Your task to perform on an android device: change keyboard looks Image 0: 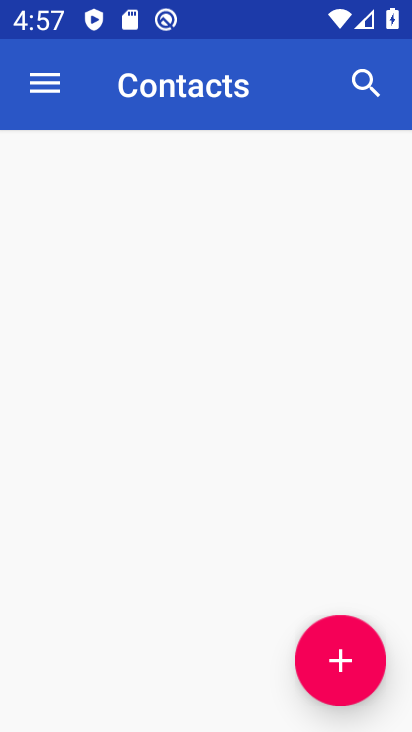
Step 0: press home button
Your task to perform on an android device: change keyboard looks Image 1: 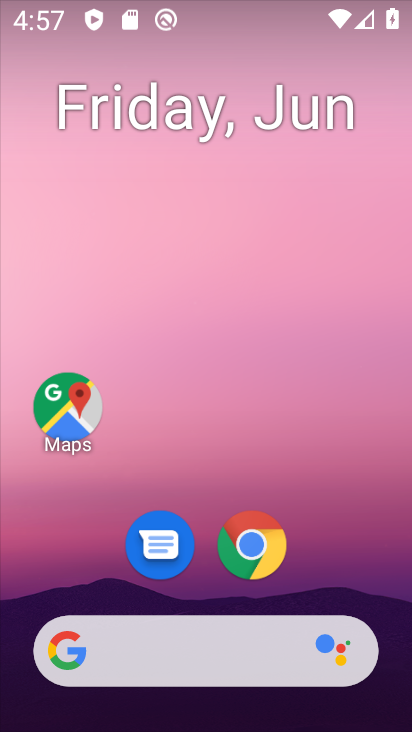
Step 1: drag from (193, 610) to (202, 215)
Your task to perform on an android device: change keyboard looks Image 2: 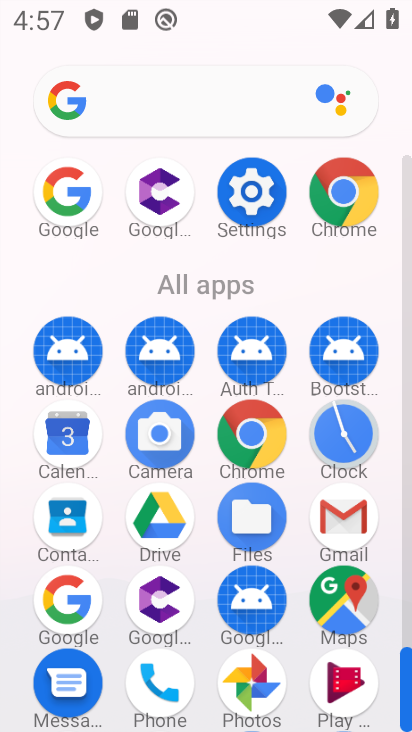
Step 2: click (243, 193)
Your task to perform on an android device: change keyboard looks Image 3: 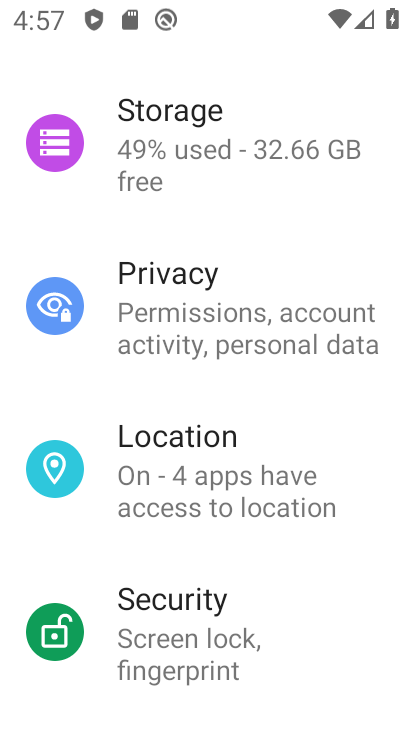
Step 3: drag from (205, 675) to (240, 280)
Your task to perform on an android device: change keyboard looks Image 4: 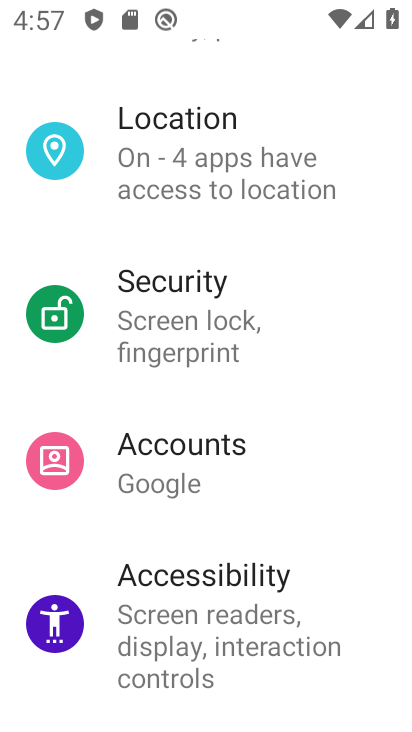
Step 4: drag from (218, 693) to (224, 315)
Your task to perform on an android device: change keyboard looks Image 5: 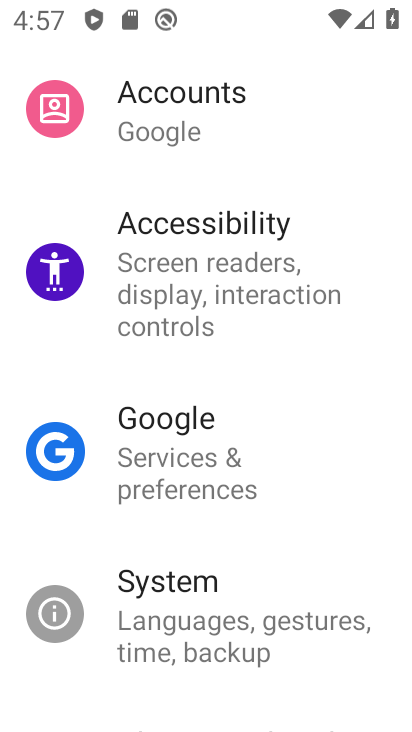
Step 5: click (180, 640)
Your task to perform on an android device: change keyboard looks Image 6: 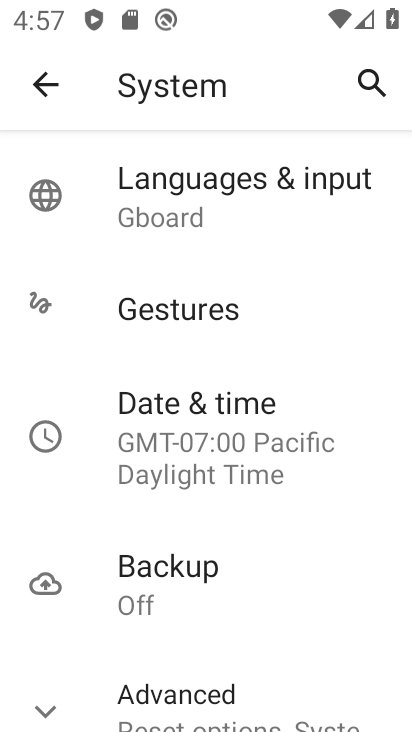
Step 6: click (240, 203)
Your task to perform on an android device: change keyboard looks Image 7: 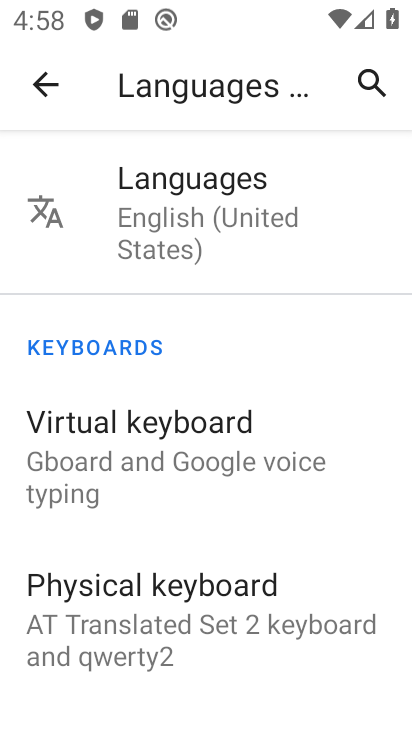
Step 7: click (154, 449)
Your task to perform on an android device: change keyboard looks Image 8: 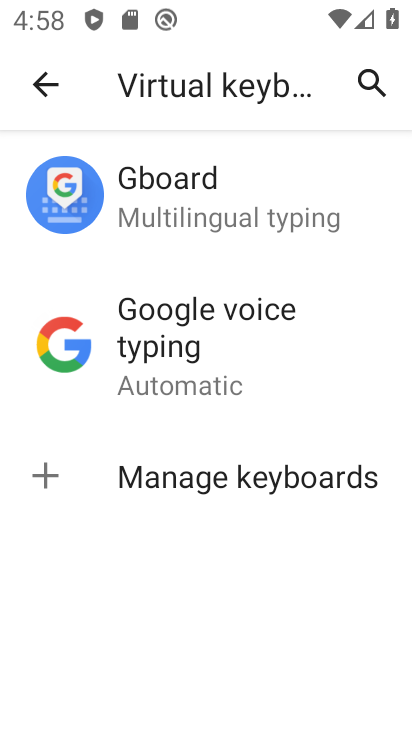
Step 8: click (166, 214)
Your task to perform on an android device: change keyboard looks Image 9: 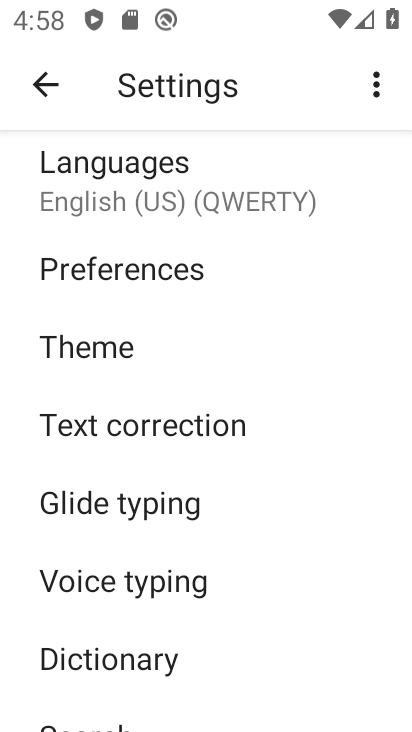
Step 9: click (62, 353)
Your task to perform on an android device: change keyboard looks Image 10: 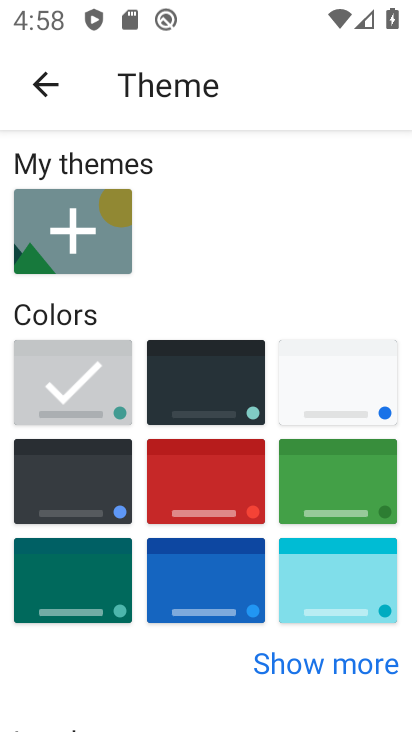
Step 10: click (204, 383)
Your task to perform on an android device: change keyboard looks Image 11: 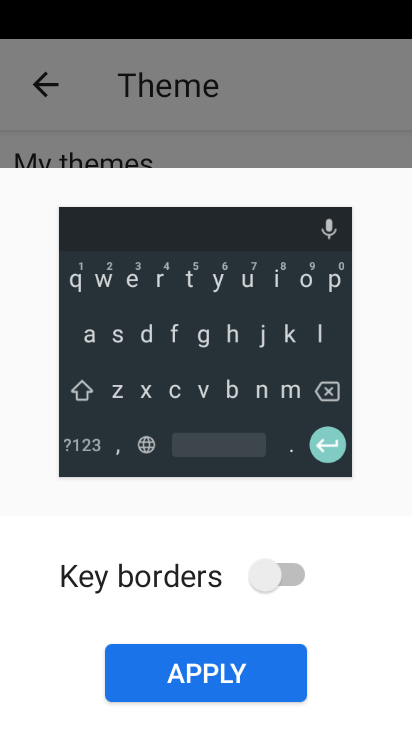
Step 11: click (228, 672)
Your task to perform on an android device: change keyboard looks Image 12: 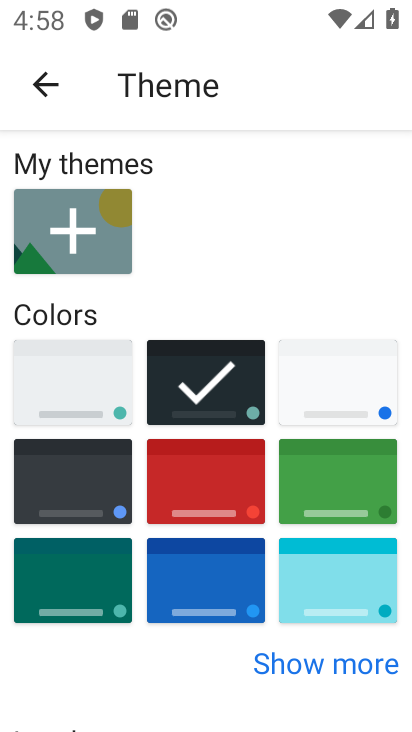
Step 12: task complete